Your task to perform on an android device: turn on notifications settings in the gmail app Image 0: 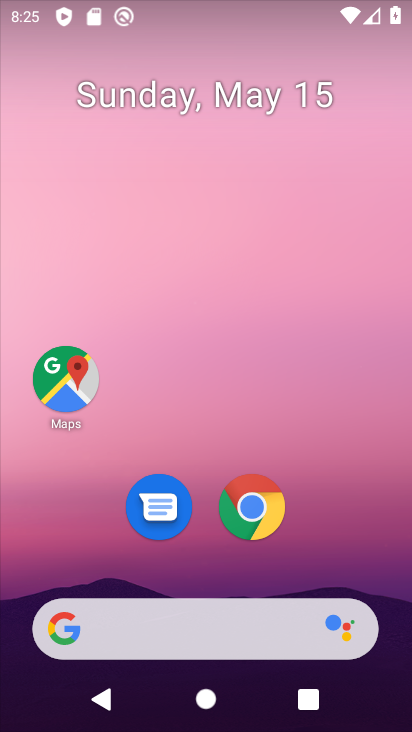
Step 0: drag from (132, 540) to (241, 3)
Your task to perform on an android device: turn on notifications settings in the gmail app Image 1: 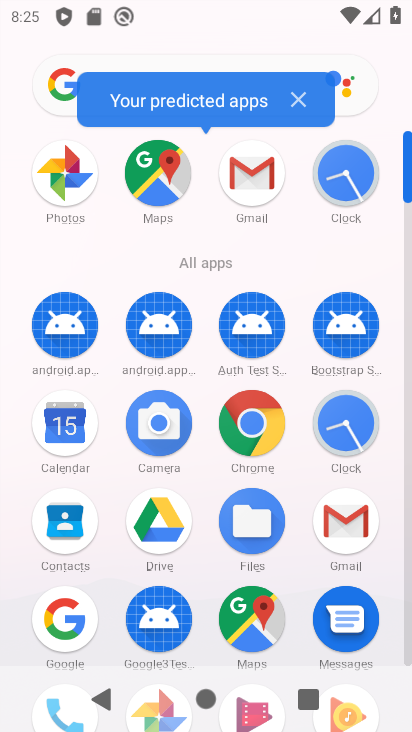
Step 1: click (352, 537)
Your task to perform on an android device: turn on notifications settings in the gmail app Image 2: 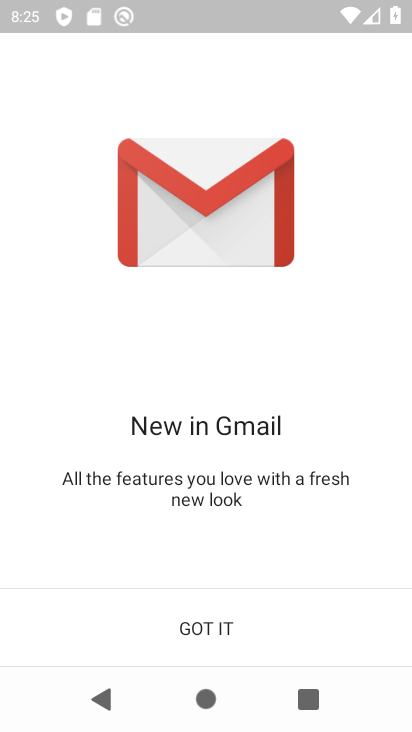
Step 2: click (301, 628)
Your task to perform on an android device: turn on notifications settings in the gmail app Image 3: 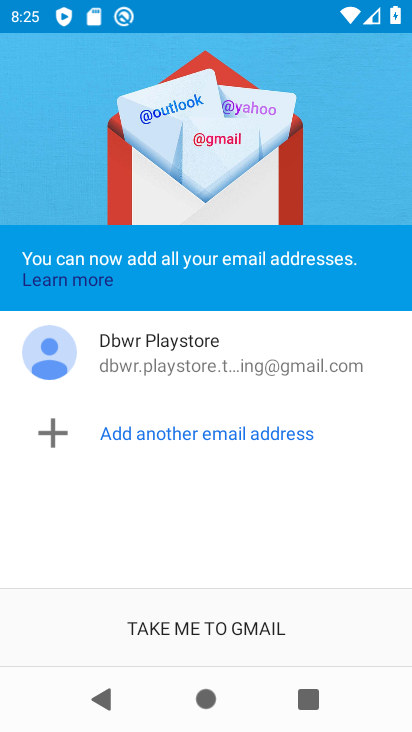
Step 3: click (298, 612)
Your task to perform on an android device: turn on notifications settings in the gmail app Image 4: 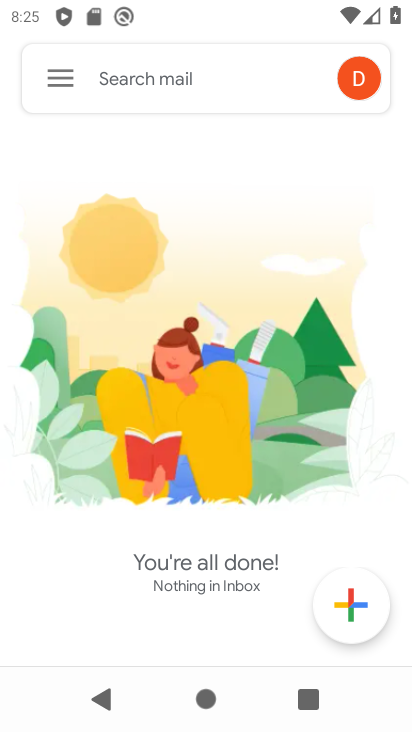
Step 4: click (62, 80)
Your task to perform on an android device: turn on notifications settings in the gmail app Image 5: 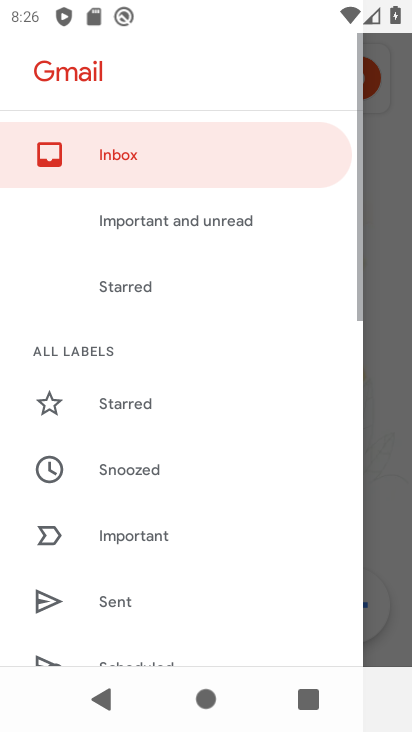
Step 5: drag from (102, 579) to (281, 131)
Your task to perform on an android device: turn on notifications settings in the gmail app Image 6: 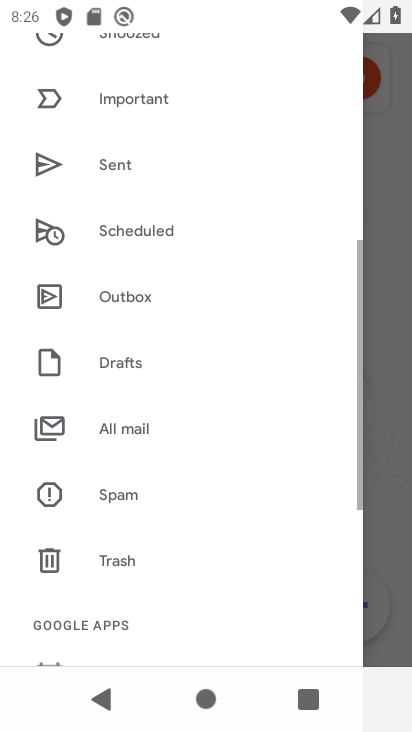
Step 6: drag from (182, 602) to (297, 184)
Your task to perform on an android device: turn on notifications settings in the gmail app Image 7: 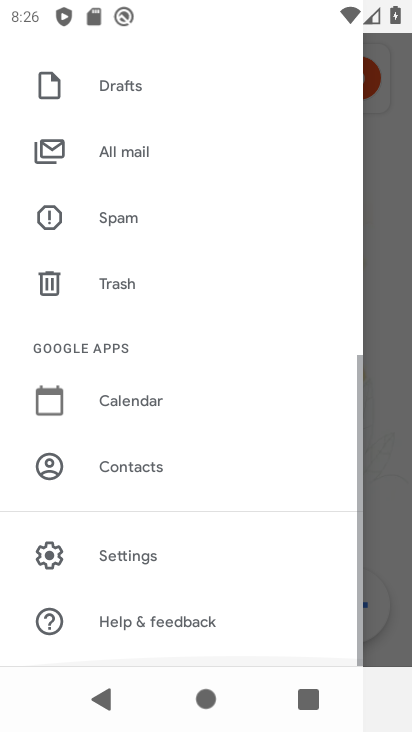
Step 7: click (189, 554)
Your task to perform on an android device: turn on notifications settings in the gmail app Image 8: 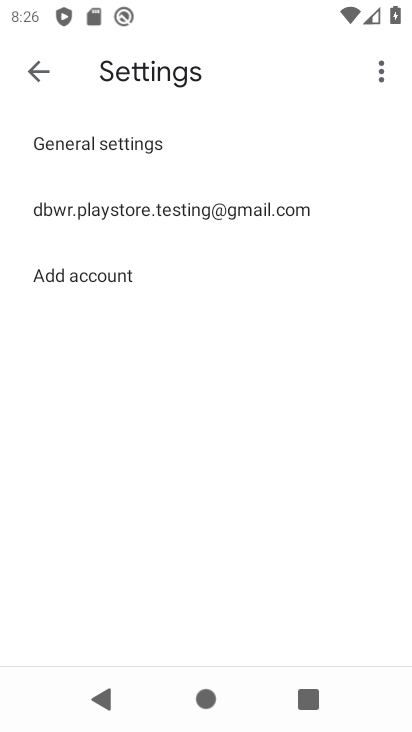
Step 8: click (252, 198)
Your task to perform on an android device: turn on notifications settings in the gmail app Image 9: 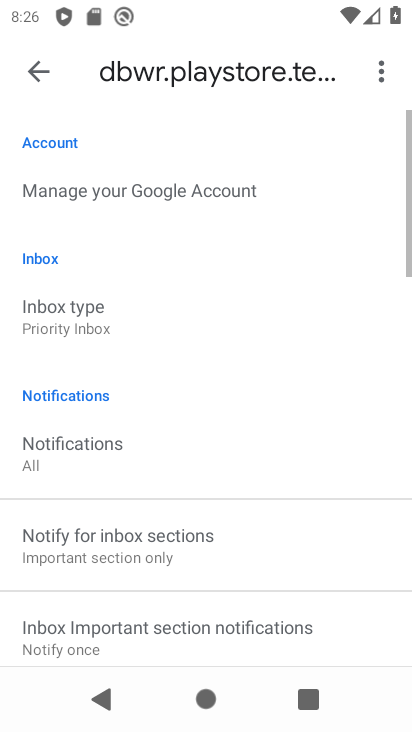
Step 9: drag from (221, 641) to (275, 329)
Your task to perform on an android device: turn on notifications settings in the gmail app Image 10: 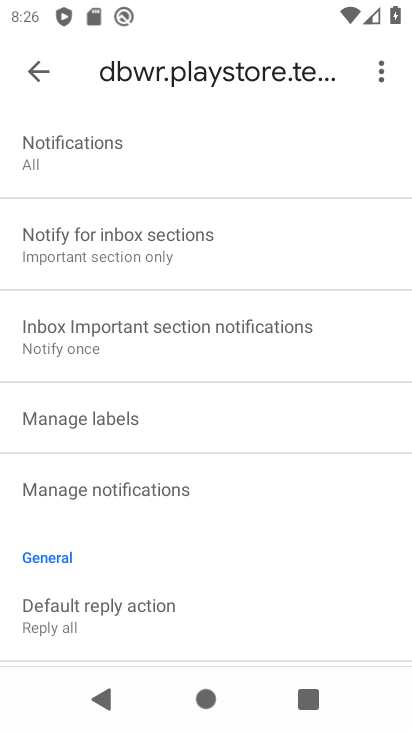
Step 10: click (180, 493)
Your task to perform on an android device: turn on notifications settings in the gmail app Image 11: 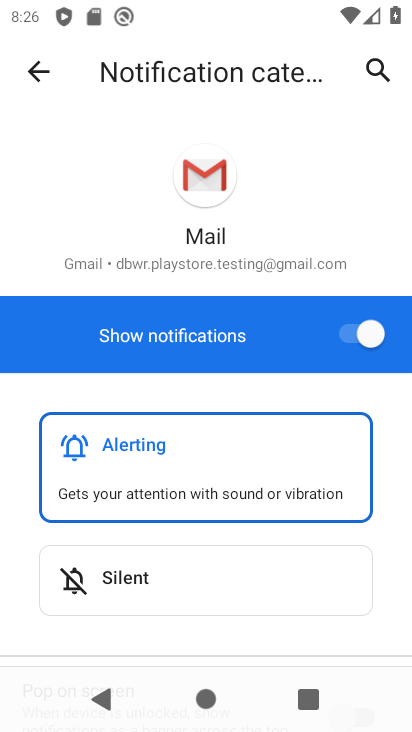
Step 11: task complete